Your task to perform on an android device: Go to sound settings Image 0: 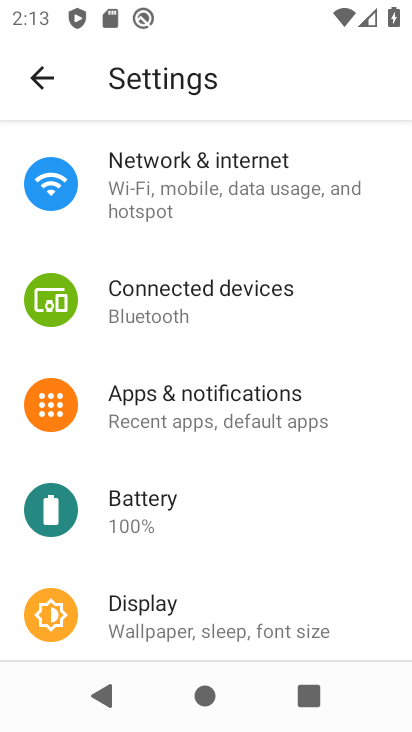
Step 0: drag from (196, 547) to (246, 429)
Your task to perform on an android device: Go to sound settings Image 1: 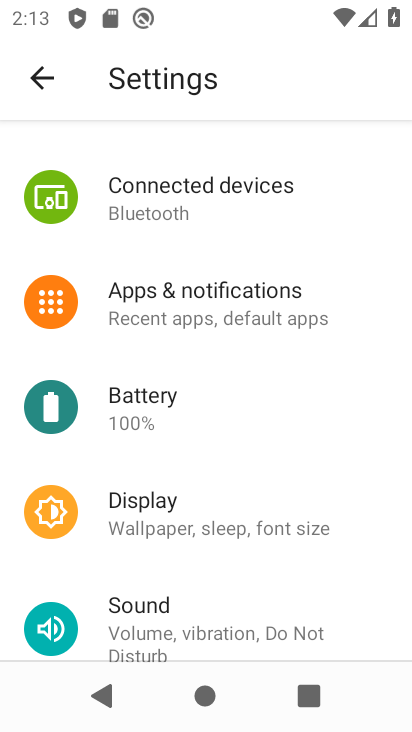
Step 1: drag from (193, 602) to (284, 390)
Your task to perform on an android device: Go to sound settings Image 2: 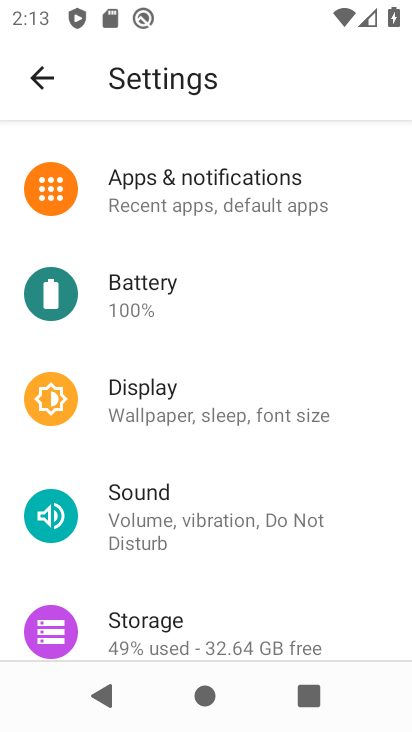
Step 2: click (165, 508)
Your task to perform on an android device: Go to sound settings Image 3: 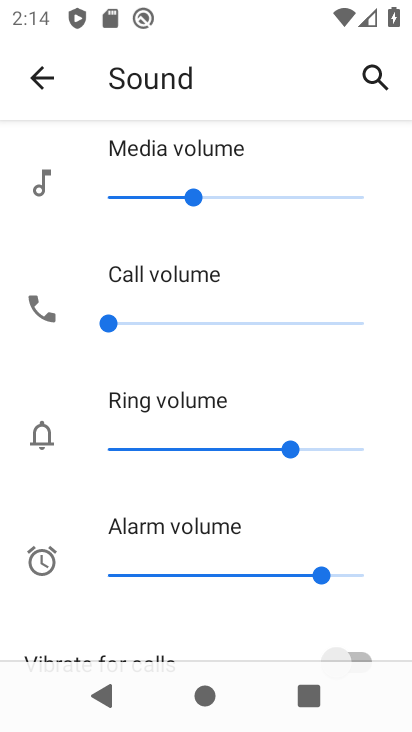
Step 3: task complete